Your task to perform on an android device: Open the stopwatch Image 0: 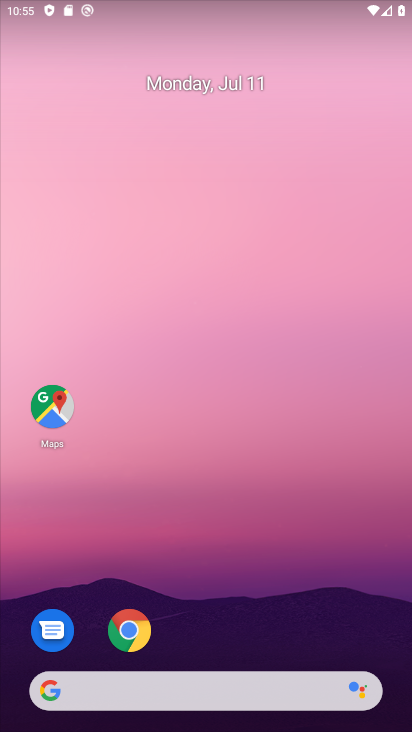
Step 0: drag from (290, 638) to (239, 259)
Your task to perform on an android device: Open the stopwatch Image 1: 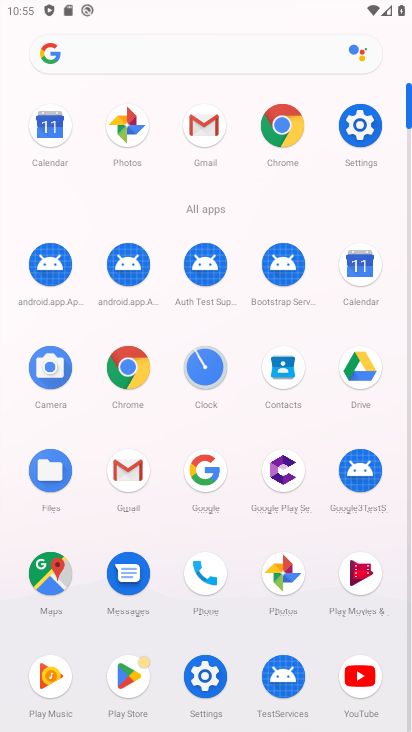
Step 1: click (212, 364)
Your task to perform on an android device: Open the stopwatch Image 2: 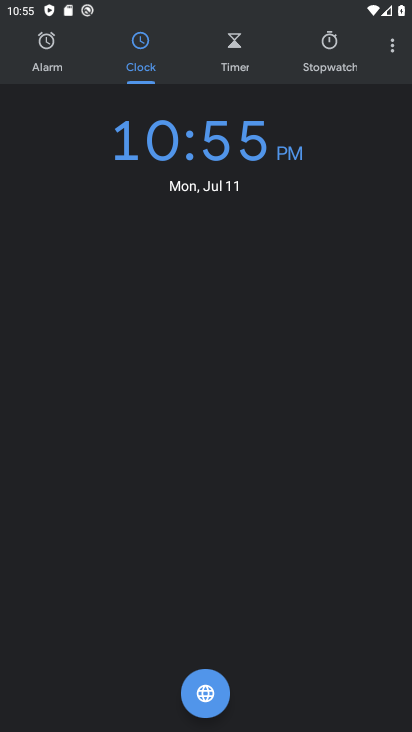
Step 2: click (334, 59)
Your task to perform on an android device: Open the stopwatch Image 3: 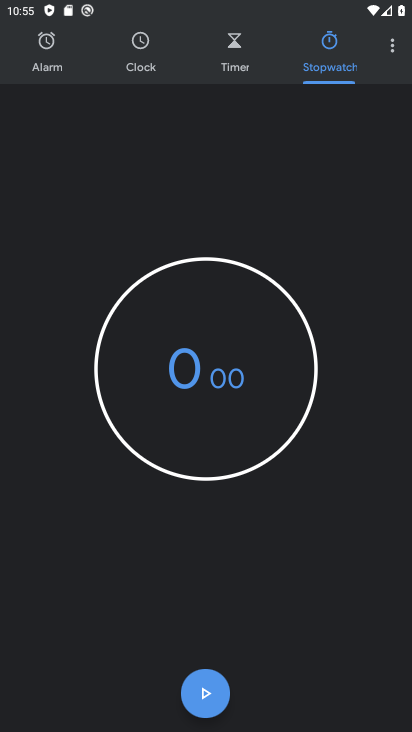
Step 3: task complete